Your task to perform on an android device: Open the calendar and show me this week's events? Image 0: 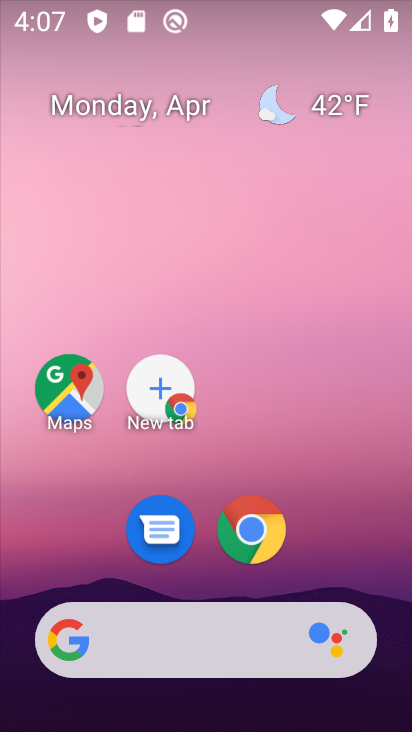
Step 0: drag from (103, 419) to (184, 13)
Your task to perform on an android device: Open the calendar and show me this week's events? Image 1: 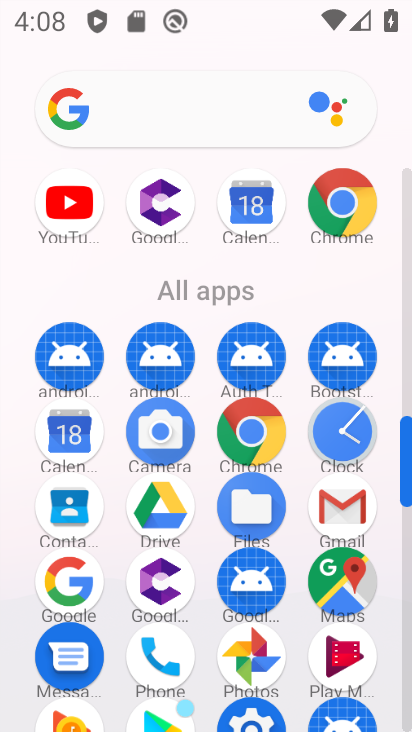
Step 1: drag from (76, 504) to (124, 240)
Your task to perform on an android device: Open the calendar and show me this week's events? Image 2: 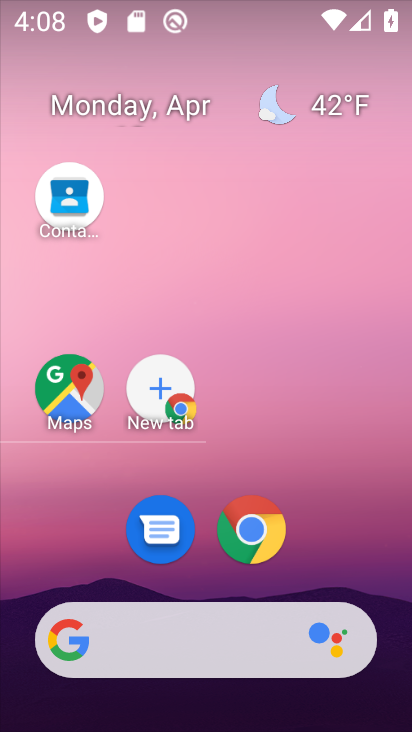
Step 2: drag from (67, 499) to (180, 12)
Your task to perform on an android device: Open the calendar and show me this week's events? Image 3: 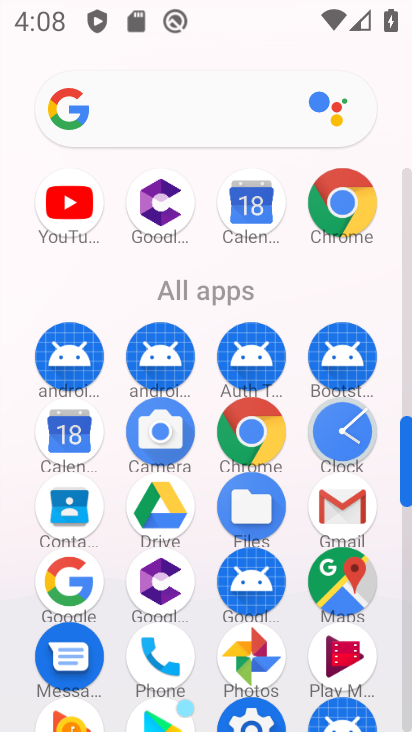
Step 3: click (69, 423)
Your task to perform on an android device: Open the calendar and show me this week's events? Image 4: 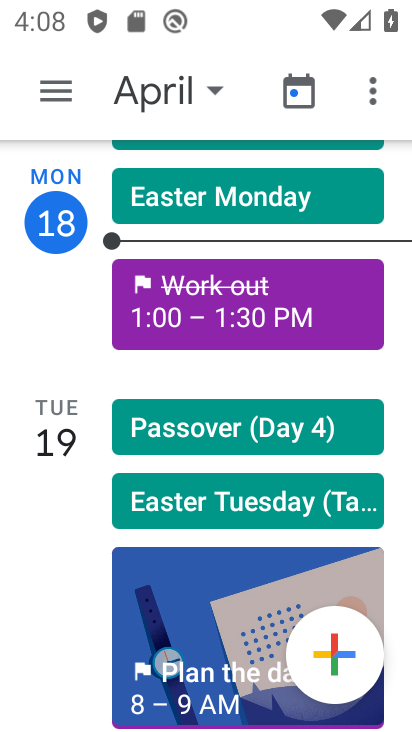
Step 4: task complete